Your task to perform on an android device: Open Maps and search for coffee Image 0: 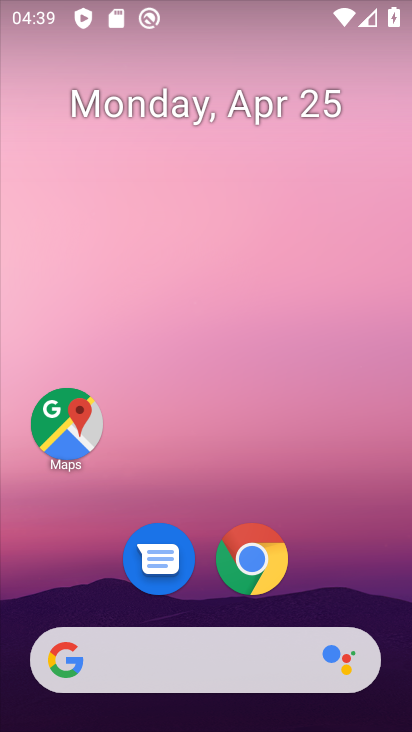
Step 0: click (86, 446)
Your task to perform on an android device: Open Maps and search for coffee Image 1: 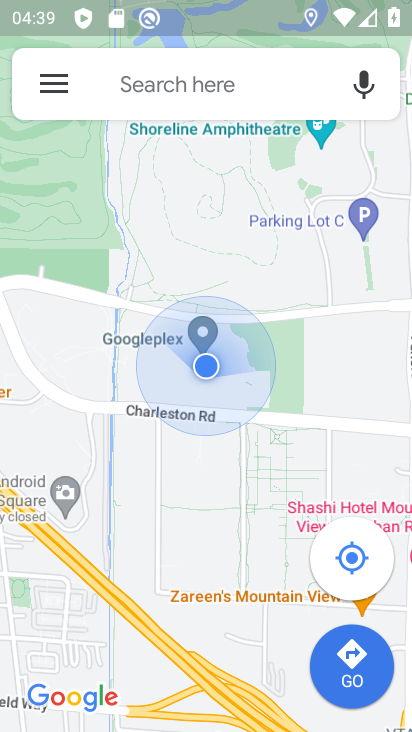
Step 1: click (194, 88)
Your task to perform on an android device: Open Maps and search for coffee Image 2: 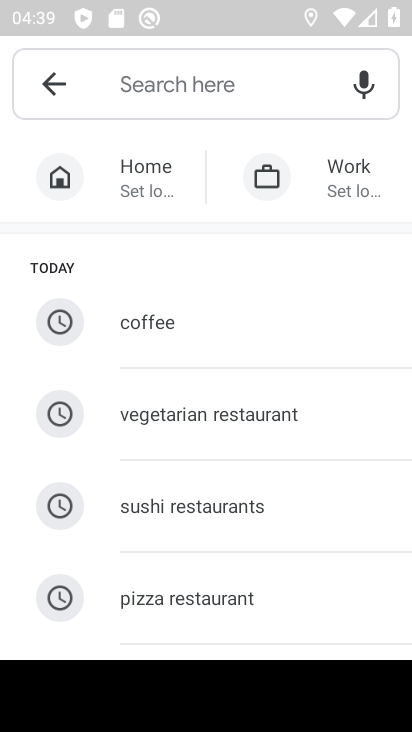
Step 2: click (177, 336)
Your task to perform on an android device: Open Maps and search for coffee Image 3: 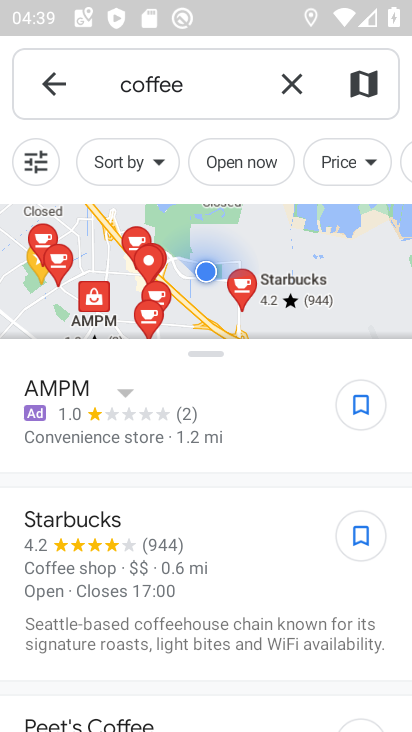
Step 3: task complete